Your task to perform on an android device: turn on data saver in the chrome app Image 0: 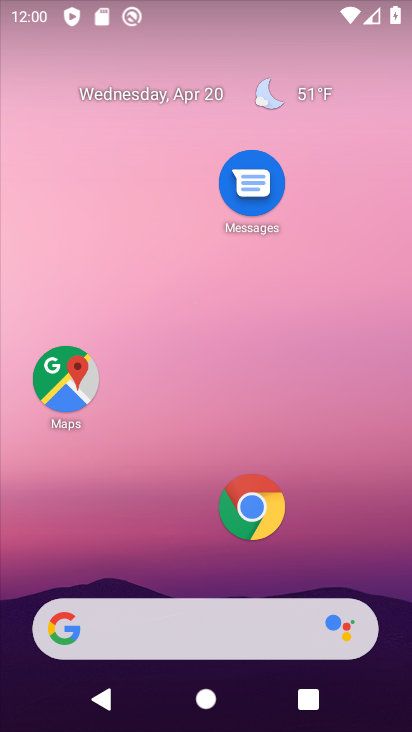
Step 0: click (252, 500)
Your task to perform on an android device: turn on data saver in the chrome app Image 1: 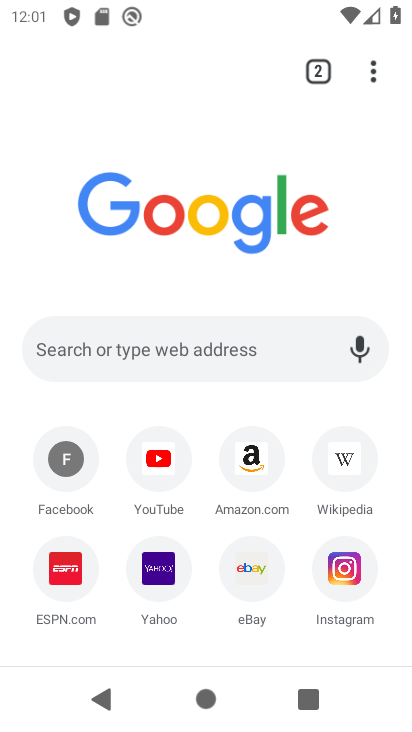
Step 1: click (378, 69)
Your task to perform on an android device: turn on data saver in the chrome app Image 2: 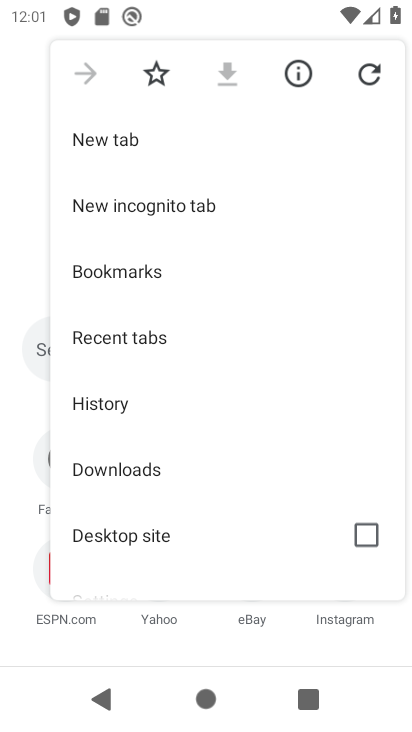
Step 2: drag from (185, 521) to (244, 370)
Your task to perform on an android device: turn on data saver in the chrome app Image 3: 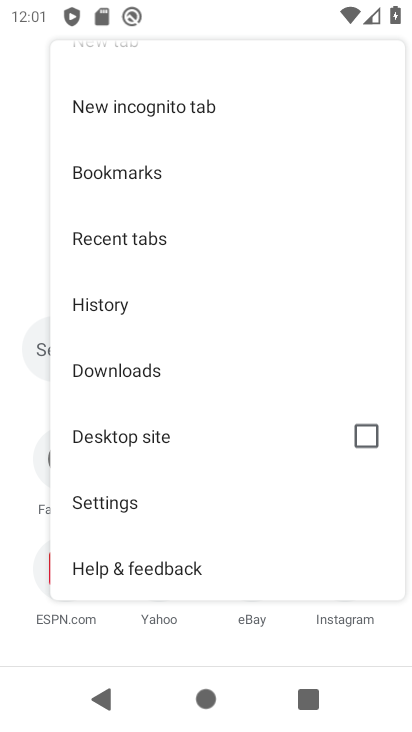
Step 3: click (107, 495)
Your task to perform on an android device: turn on data saver in the chrome app Image 4: 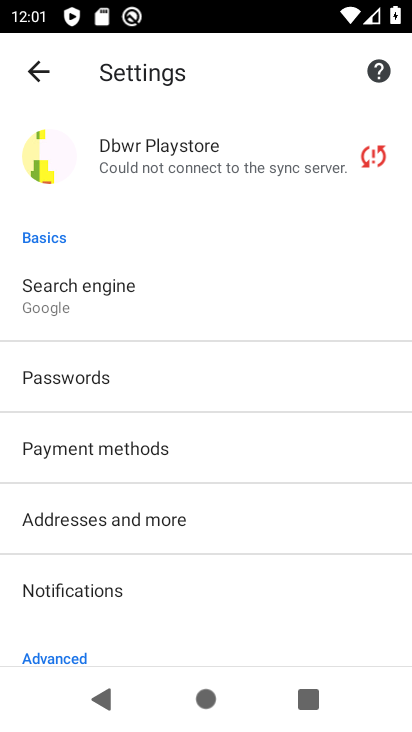
Step 4: drag from (156, 582) to (237, 441)
Your task to perform on an android device: turn on data saver in the chrome app Image 5: 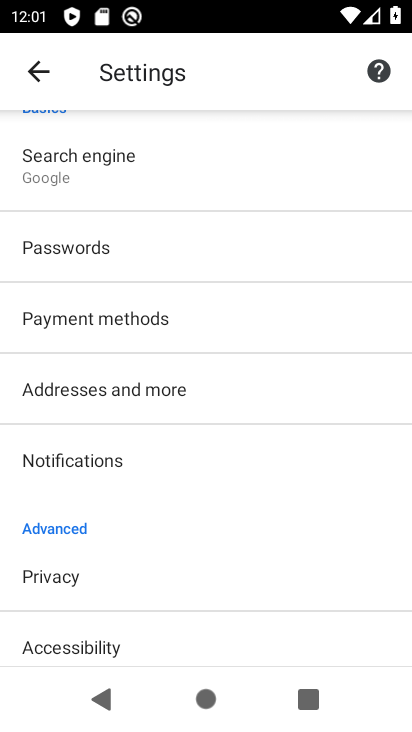
Step 5: drag from (161, 554) to (199, 447)
Your task to perform on an android device: turn on data saver in the chrome app Image 6: 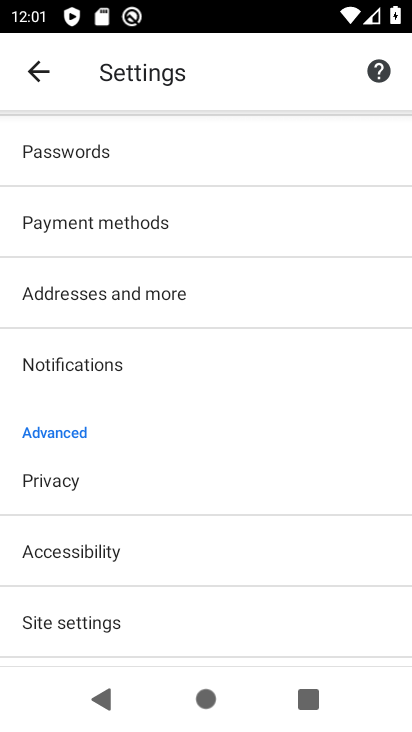
Step 6: drag from (139, 545) to (154, 444)
Your task to perform on an android device: turn on data saver in the chrome app Image 7: 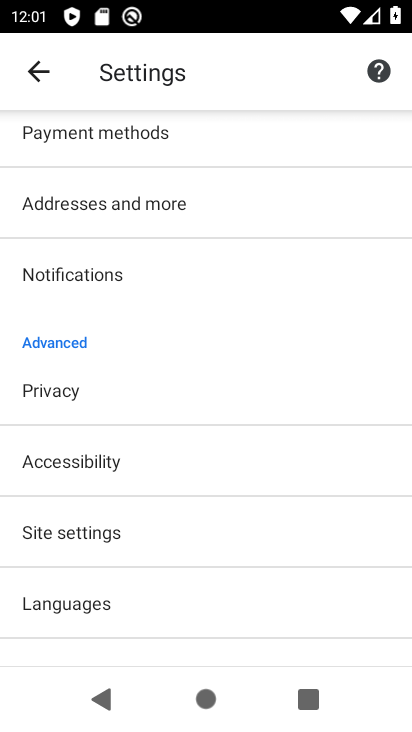
Step 7: drag from (152, 548) to (170, 469)
Your task to perform on an android device: turn on data saver in the chrome app Image 8: 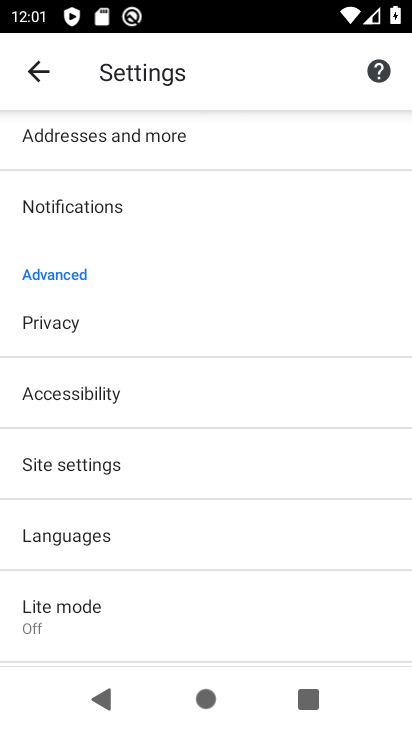
Step 8: click (82, 611)
Your task to perform on an android device: turn on data saver in the chrome app Image 9: 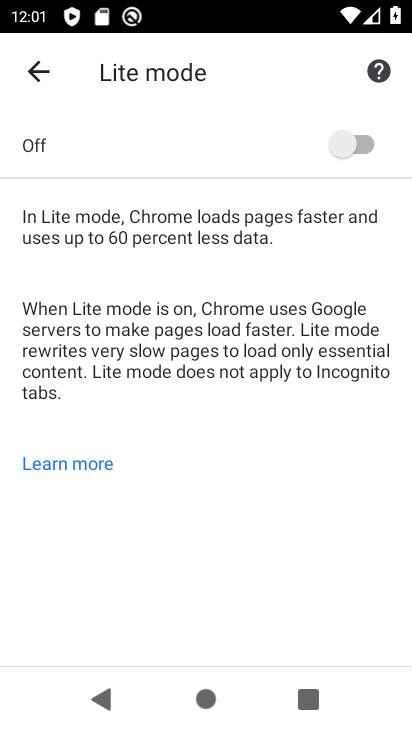
Step 9: click (348, 146)
Your task to perform on an android device: turn on data saver in the chrome app Image 10: 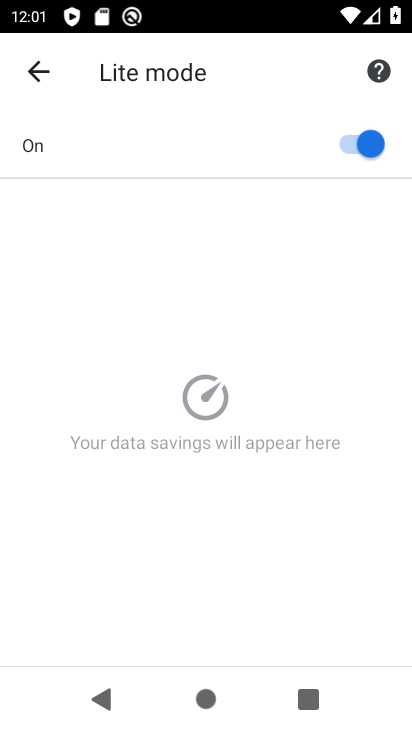
Step 10: task complete